Your task to perform on an android device: turn pop-ups off in chrome Image 0: 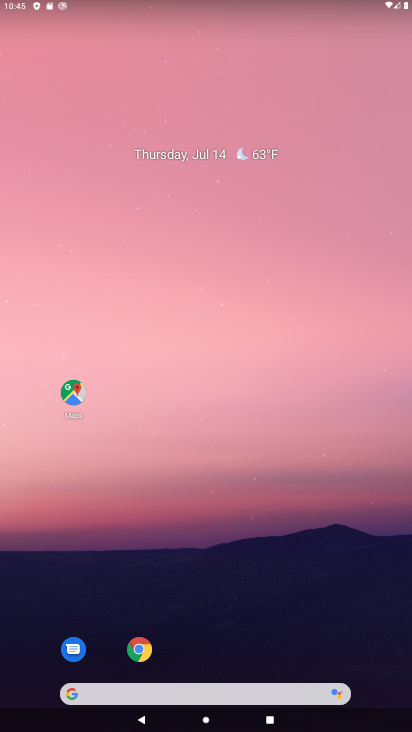
Step 0: drag from (247, 657) to (189, 256)
Your task to perform on an android device: turn pop-ups off in chrome Image 1: 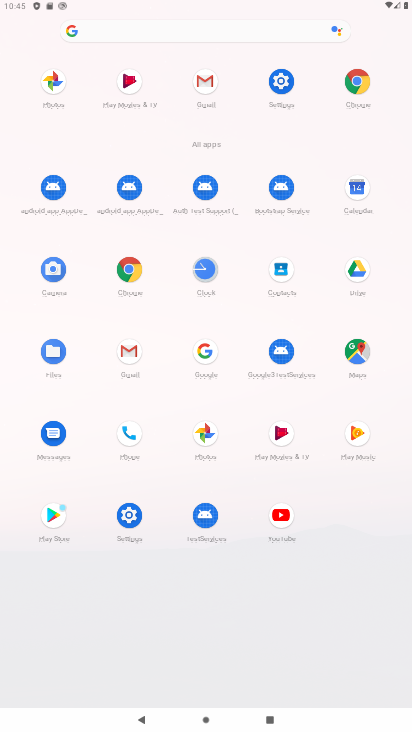
Step 1: click (365, 88)
Your task to perform on an android device: turn pop-ups off in chrome Image 2: 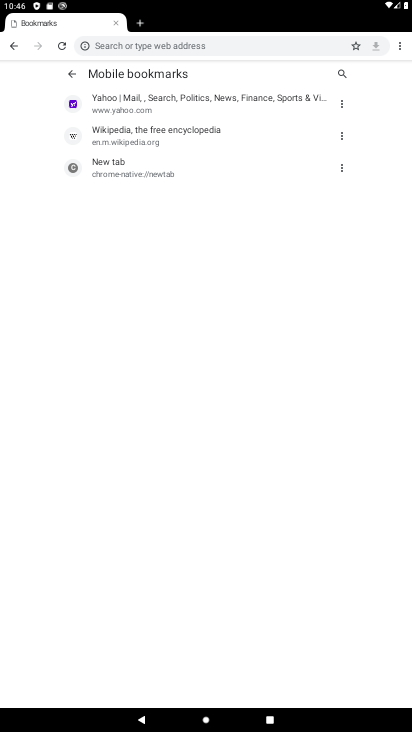
Step 2: drag from (399, 45) to (314, 212)
Your task to perform on an android device: turn pop-ups off in chrome Image 3: 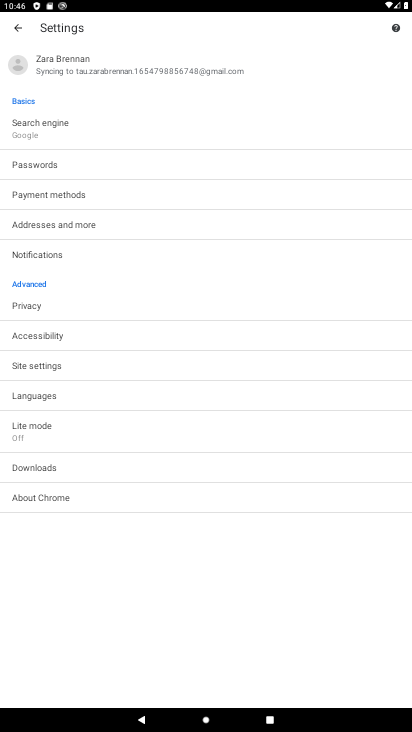
Step 3: click (53, 364)
Your task to perform on an android device: turn pop-ups off in chrome Image 4: 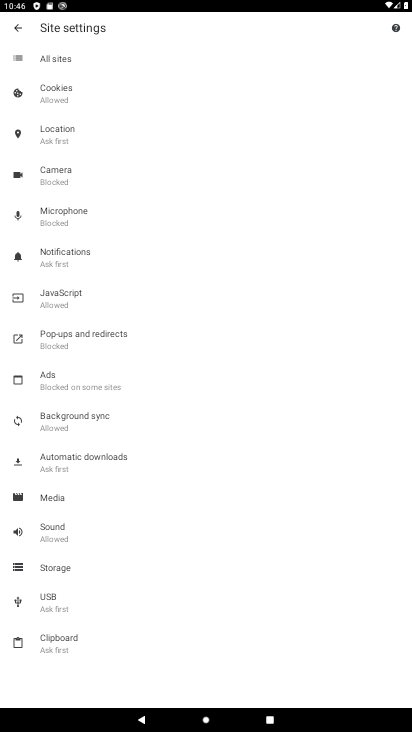
Step 4: click (55, 330)
Your task to perform on an android device: turn pop-ups off in chrome Image 5: 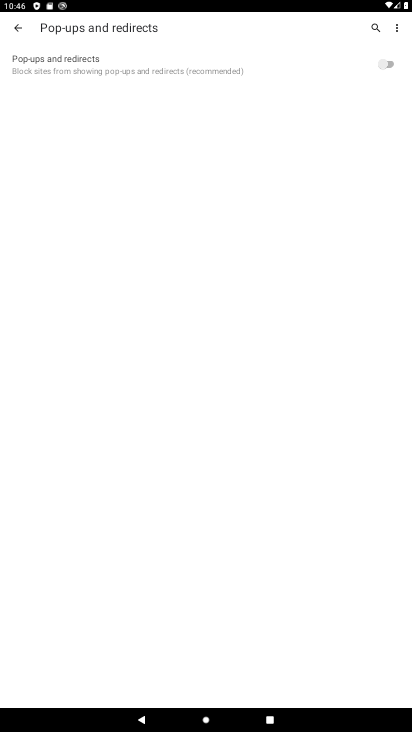
Step 5: task complete